Your task to perform on an android device: What's the price of the new iPhone Image 0: 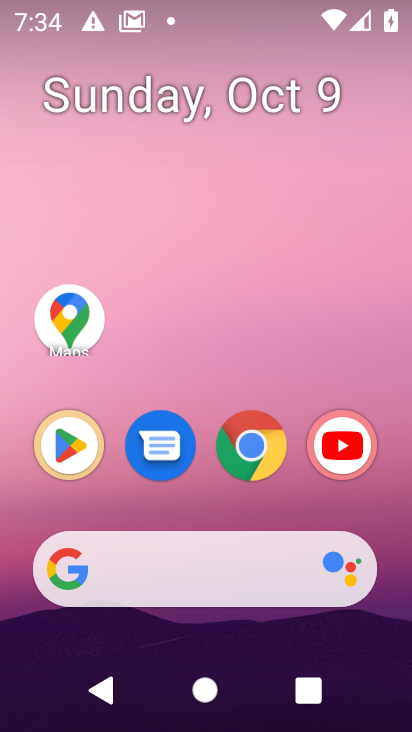
Step 0: drag from (217, 548) to (207, 83)
Your task to perform on an android device: What's the price of the new iPhone Image 1: 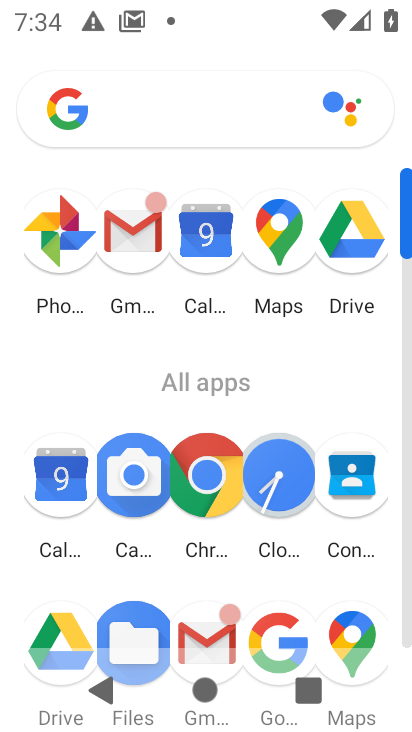
Step 1: click (200, 481)
Your task to perform on an android device: What's the price of the new iPhone Image 2: 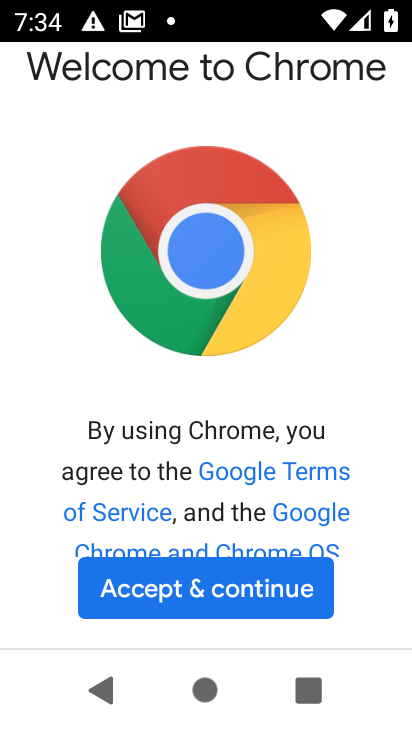
Step 2: click (199, 587)
Your task to perform on an android device: What's the price of the new iPhone Image 3: 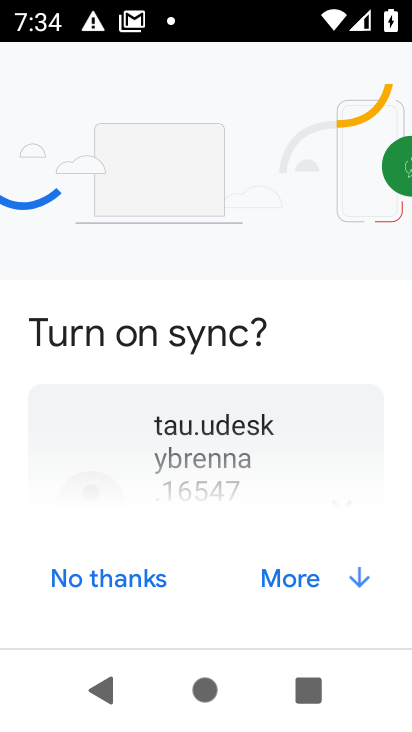
Step 3: click (199, 587)
Your task to perform on an android device: What's the price of the new iPhone Image 4: 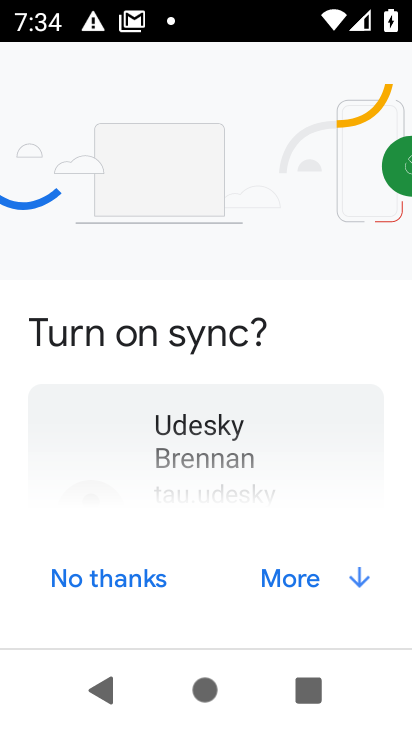
Step 4: click (202, 595)
Your task to perform on an android device: What's the price of the new iPhone Image 5: 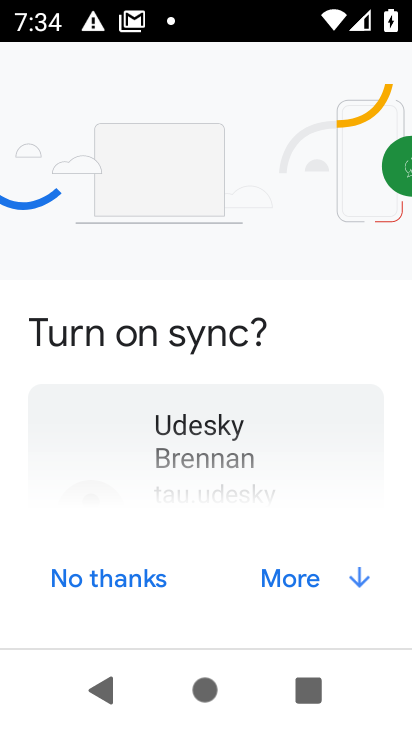
Step 5: click (133, 578)
Your task to perform on an android device: What's the price of the new iPhone Image 6: 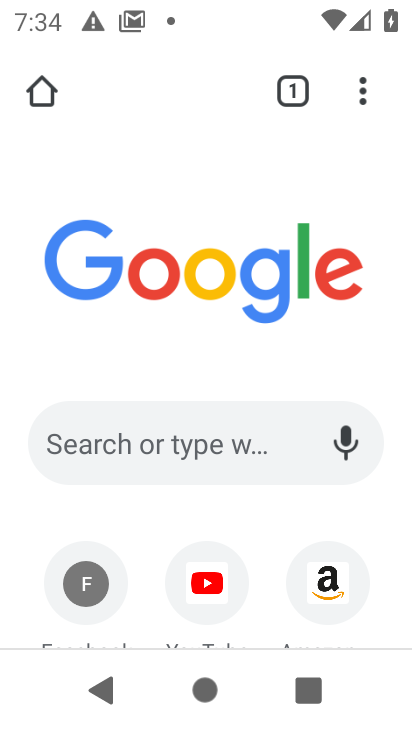
Step 6: click (159, 442)
Your task to perform on an android device: What's the price of the new iPhone Image 7: 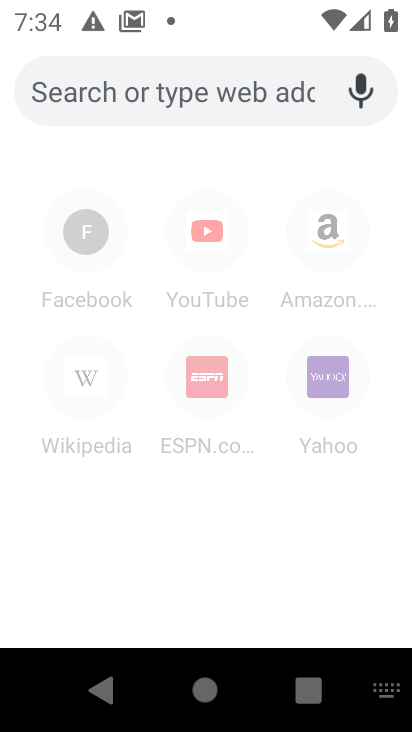
Step 7: type "What's the price of the new iPhone"
Your task to perform on an android device: What's the price of the new iPhone Image 8: 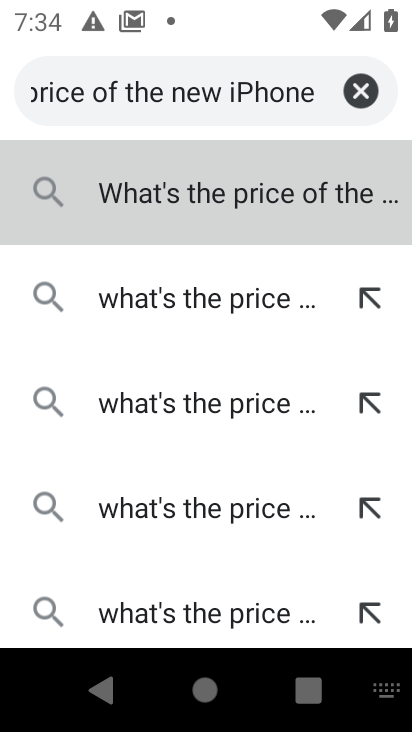
Step 8: click (245, 196)
Your task to perform on an android device: What's the price of the new iPhone Image 9: 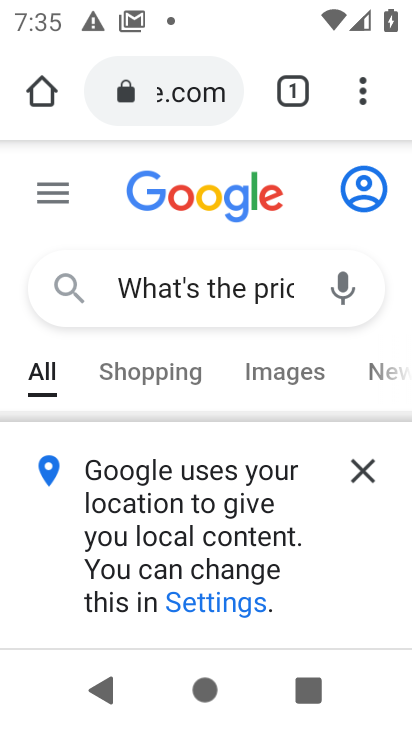
Step 9: click (364, 475)
Your task to perform on an android device: What's the price of the new iPhone Image 10: 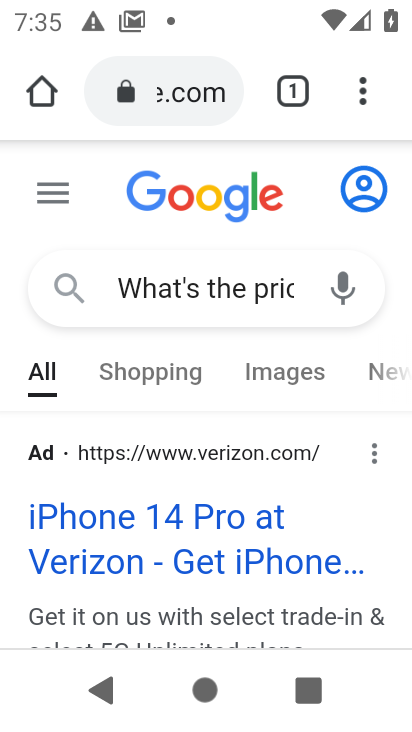
Step 10: click (217, 545)
Your task to perform on an android device: What's the price of the new iPhone Image 11: 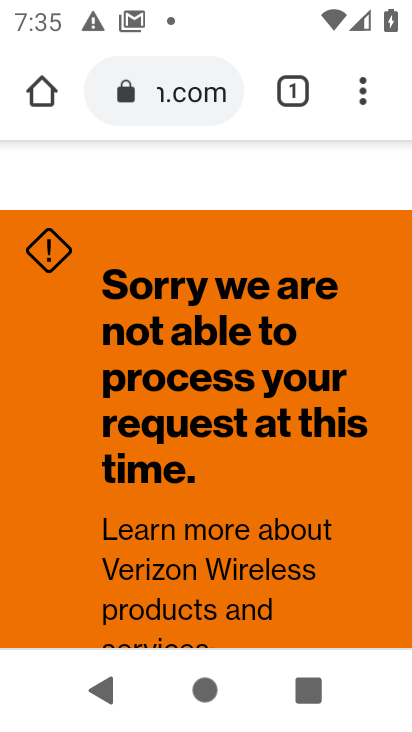
Step 11: task complete